Your task to perform on an android device: Open a new window in the chrome app Image 0: 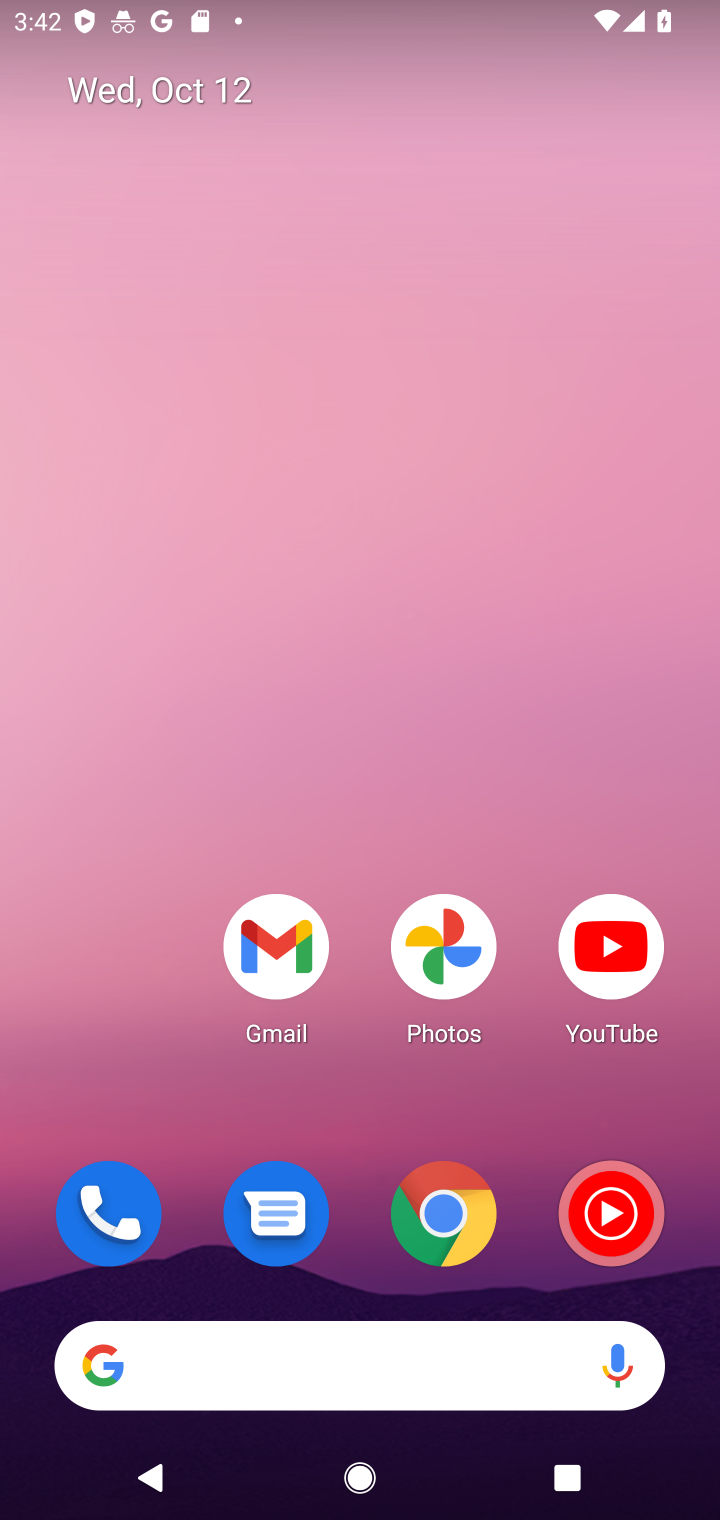
Step 0: click (440, 1204)
Your task to perform on an android device: Open a new window in the chrome app Image 1: 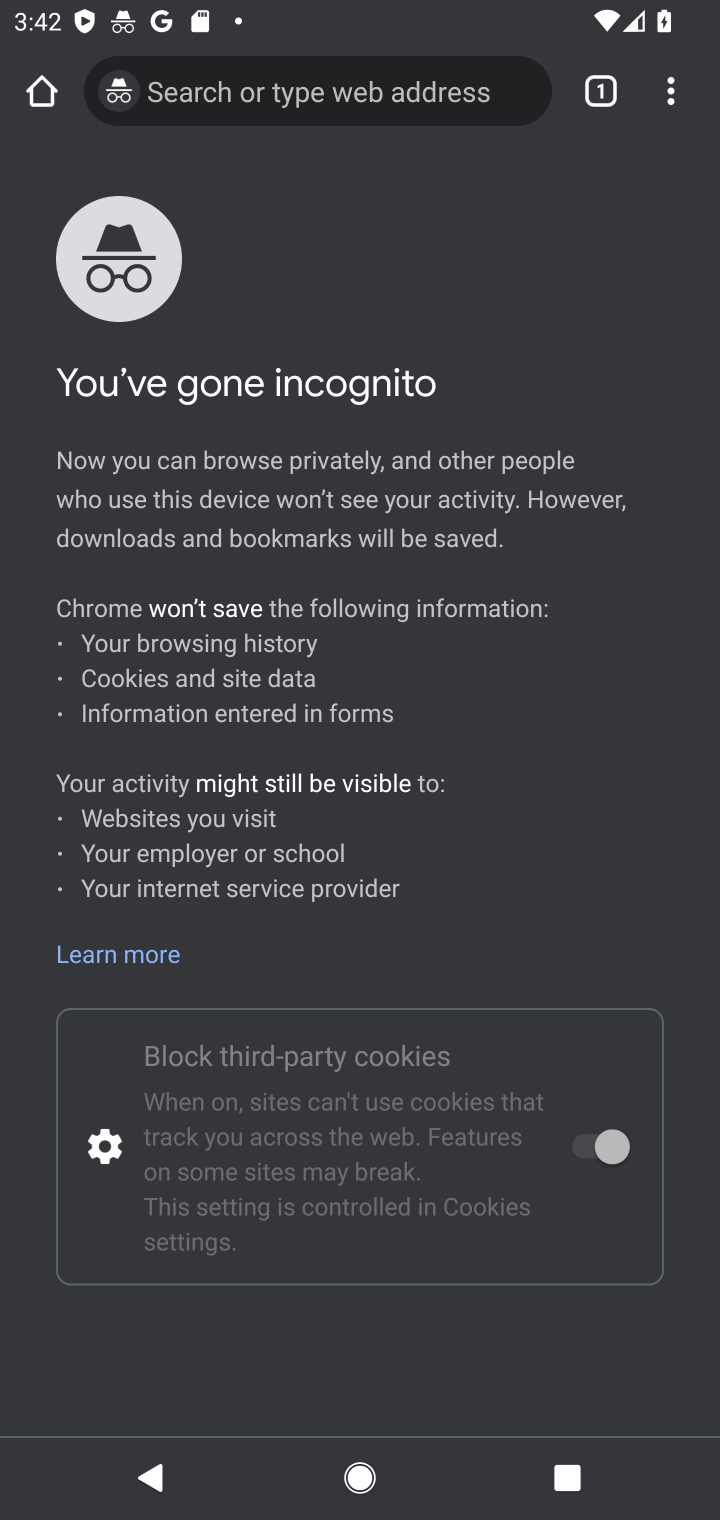
Step 1: click (607, 91)
Your task to perform on an android device: Open a new window in the chrome app Image 2: 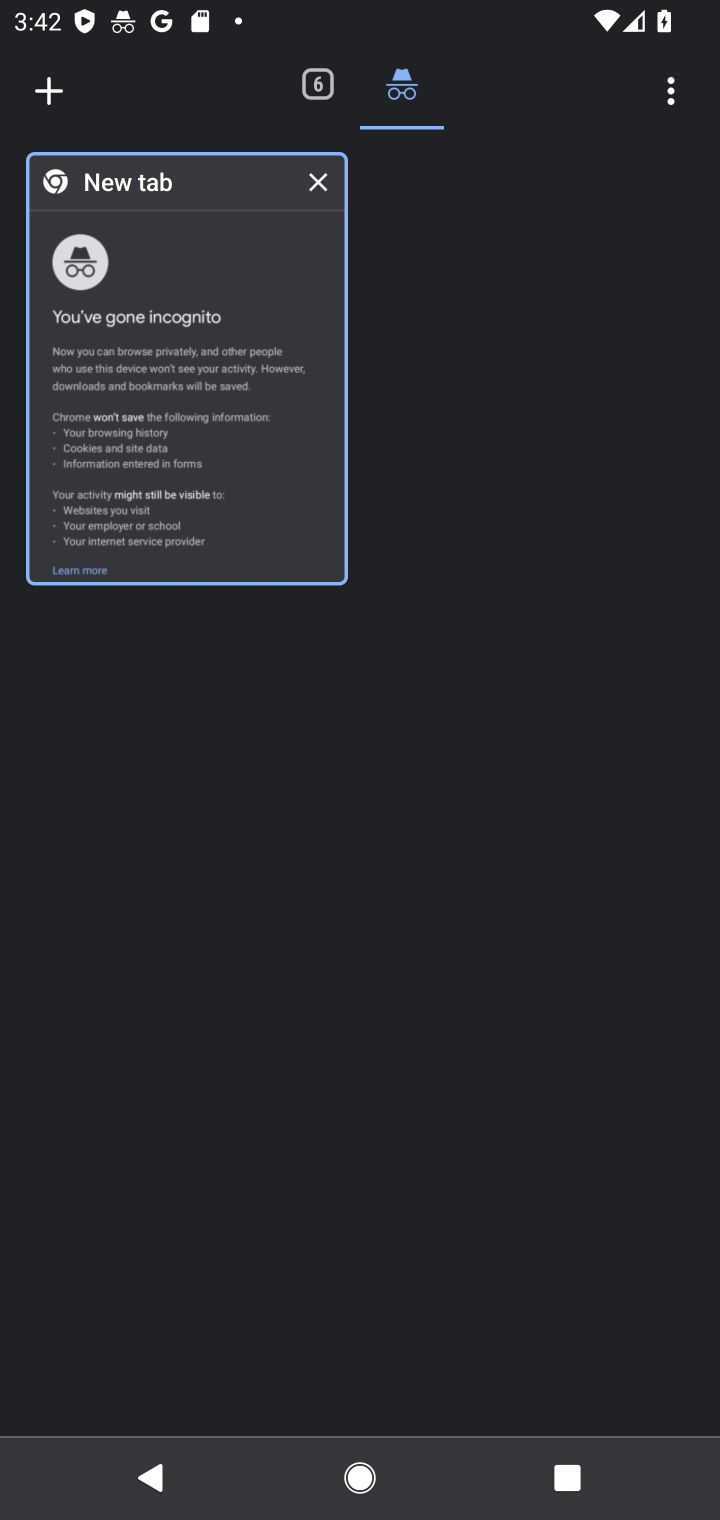
Step 2: click (32, 77)
Your task to perform on an android device: Open a new window in the chrome app Image 3: 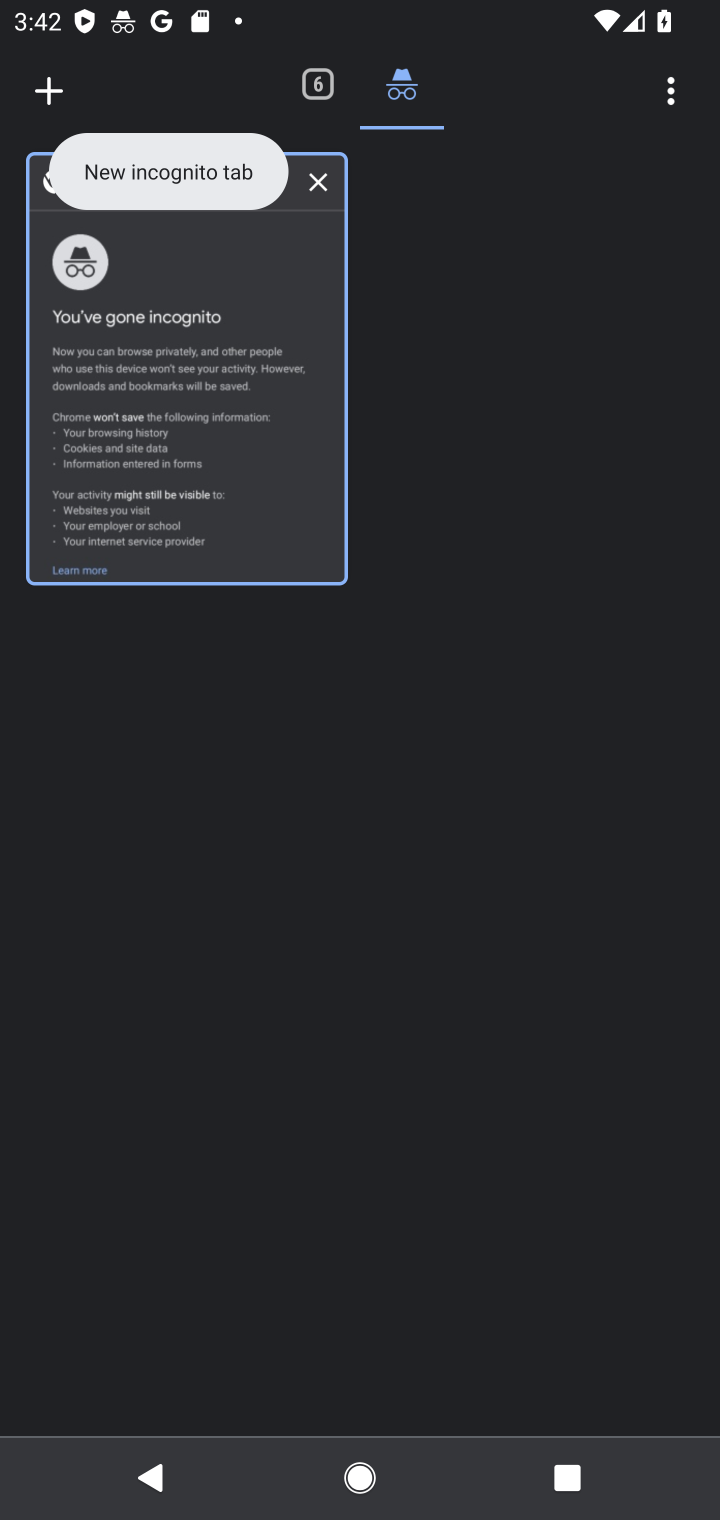
Step 3: click (318, 67)
Your task to perform on an android device: Open a new window in the chrome app Image 4: 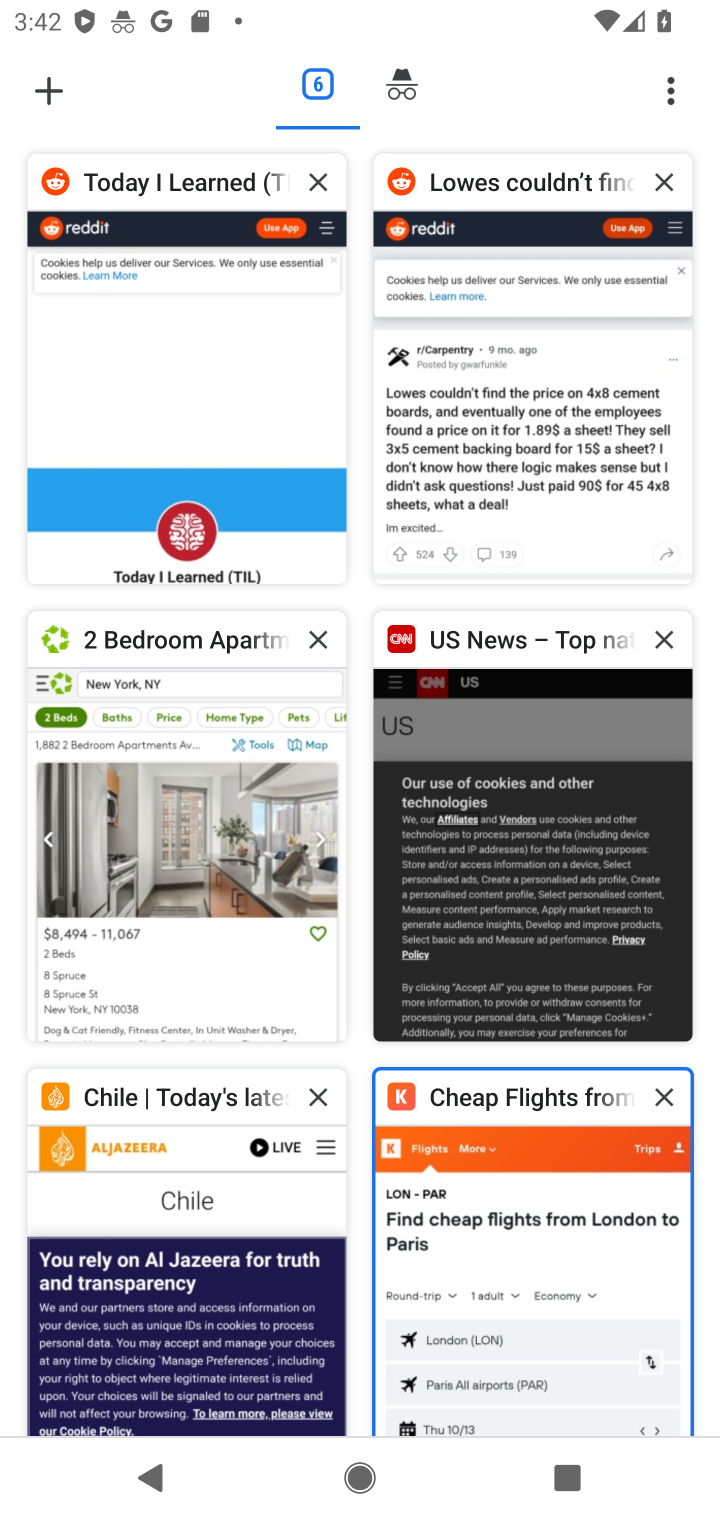
Step 4: click (38, 85)
Your task to perform on an android device: Open a new window in the chrome app Image 5: 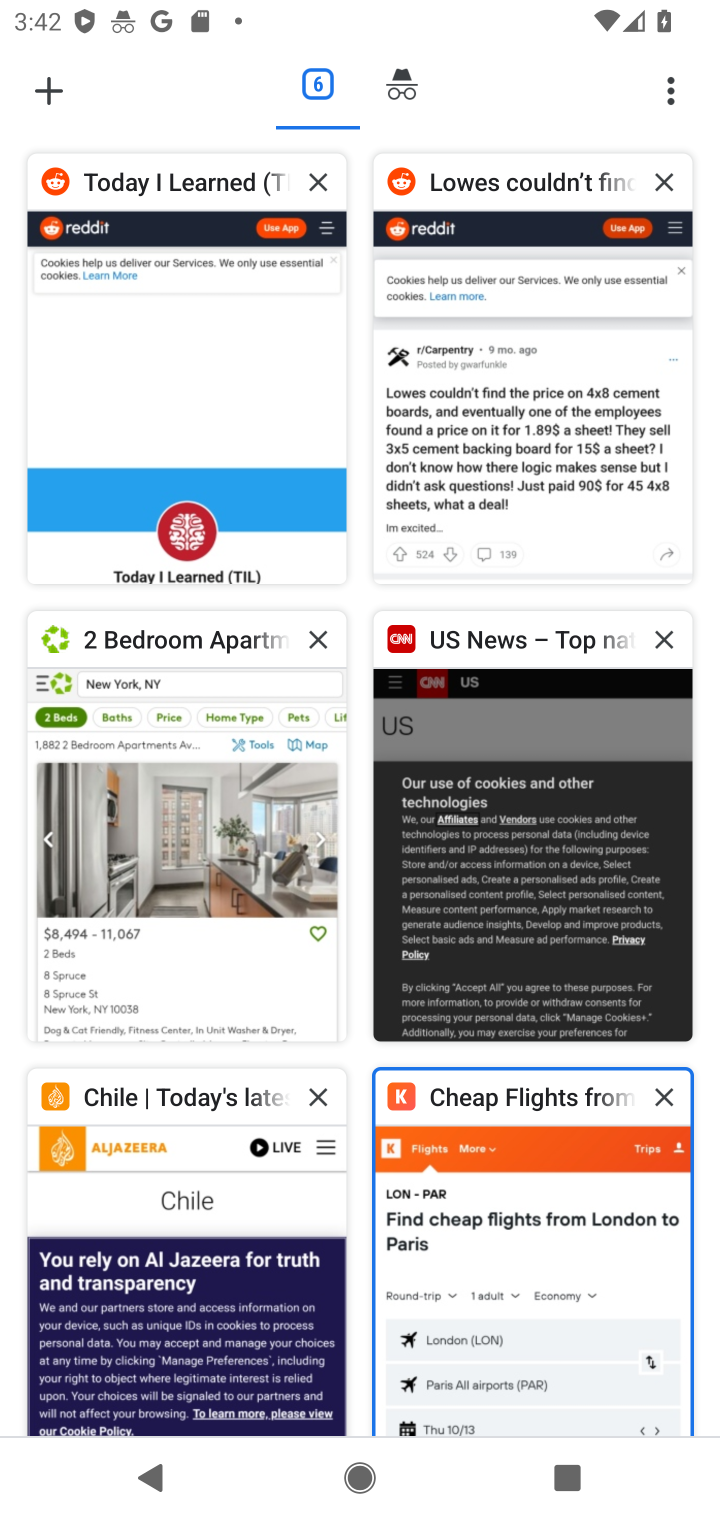
Step 5: click (48, 77)
Your task to perform on an android device: Open a new window in the chrome app Image 6: 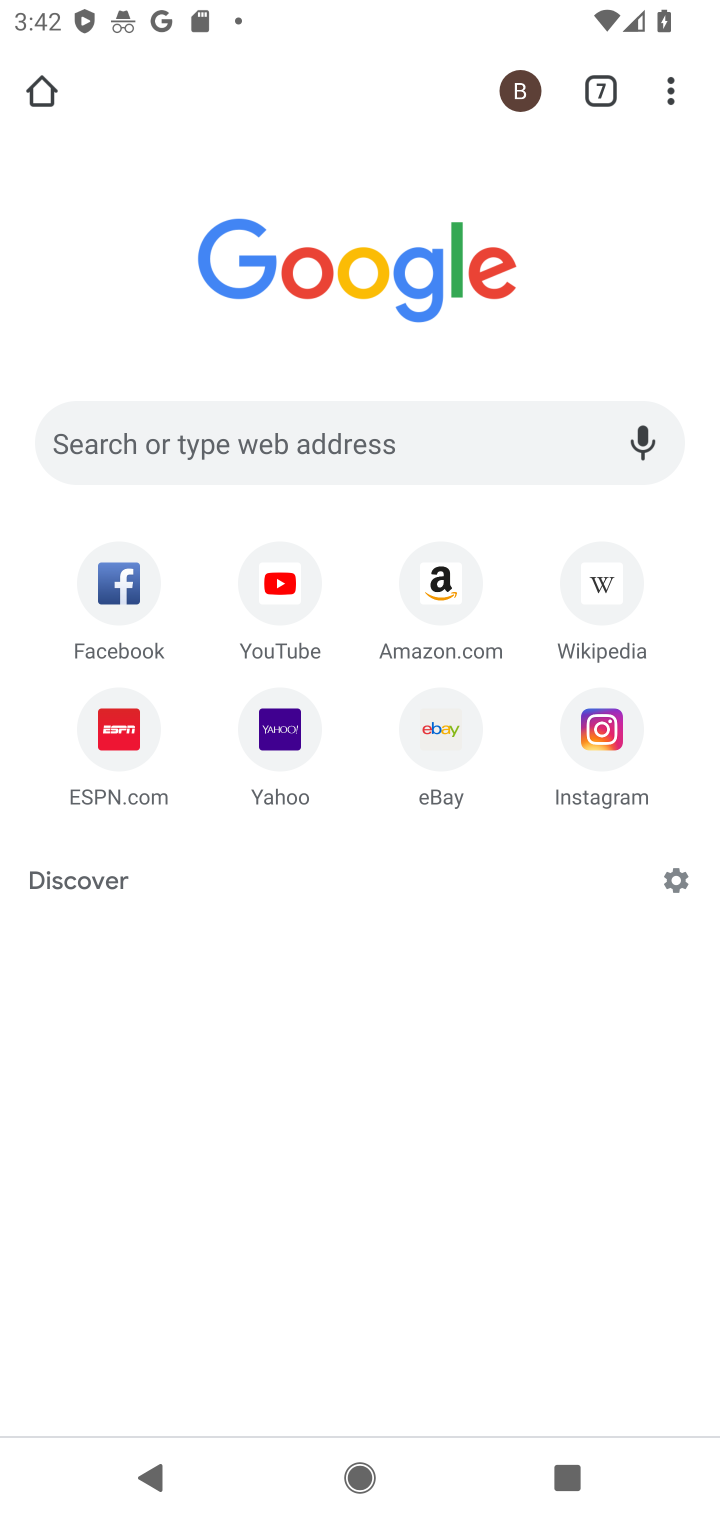
Step 6: task complete